Your task to perform on an android device: see tabs open on other devices in the chrome app Image 0: 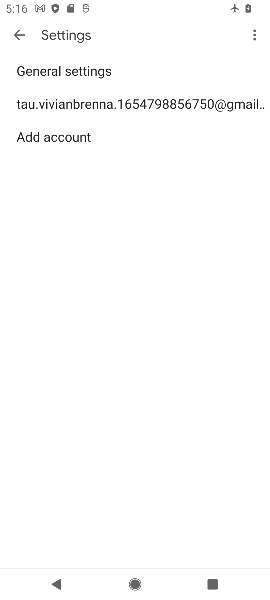
Step 0: press home button
Your task to perform on an android device: see tabs open on other devices in the chrome app Image 1: 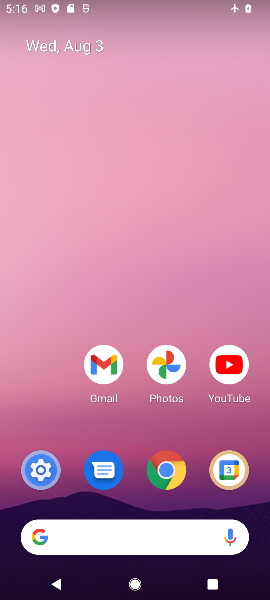
Step 1: drag from (27, 381) to (74, 52)
Your task to perform on an android device: see tabs open on other devices in the chrome app Image 2: 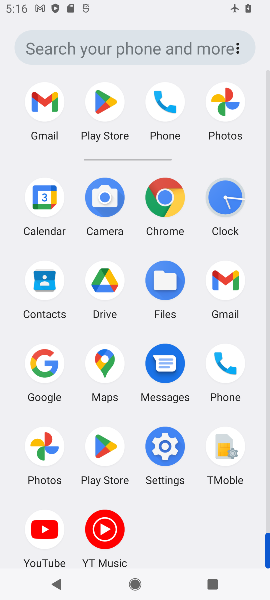
Step 2: click (166, 199)
Your task to perform on an android device: see tabs open on other devices in the chrome app Image 3: 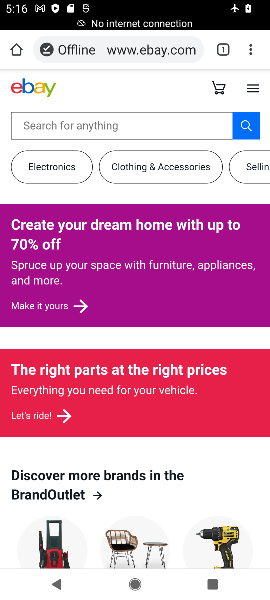
Step 3: task complete